Your task to perform on an android device: see tabs open on other devices in the chrome app Image 0: 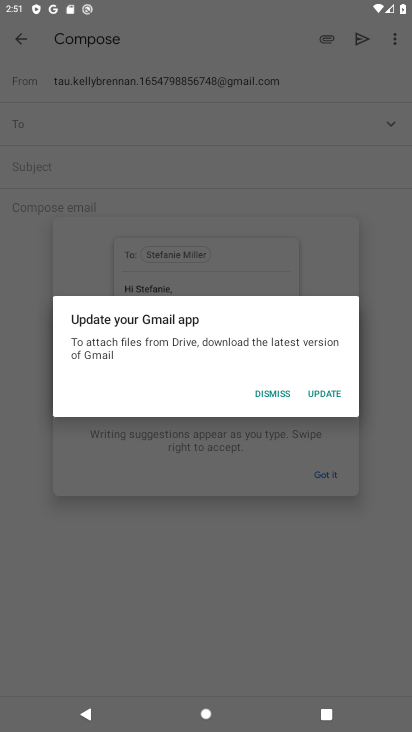
Step 0: press home button
Your task to perform on an android device: see tabs open on other devices in the chrome app Image 1: 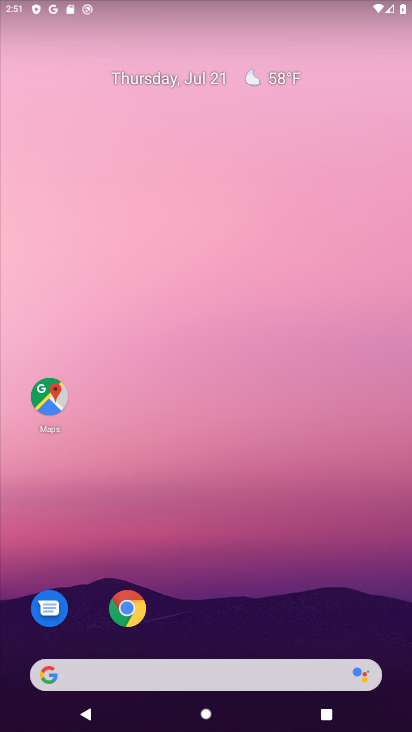
Step 1: click (120, 606)
Your task to perform on an android device: see tabs open on other devices in the chrome app Image 2: 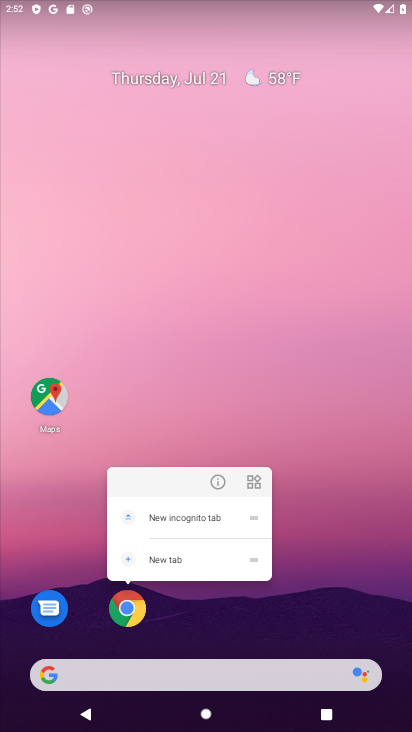
Step 2: click (333, 513)
Your task to perform on an android device: see tabs open on other devices in the chrome app Image 3: 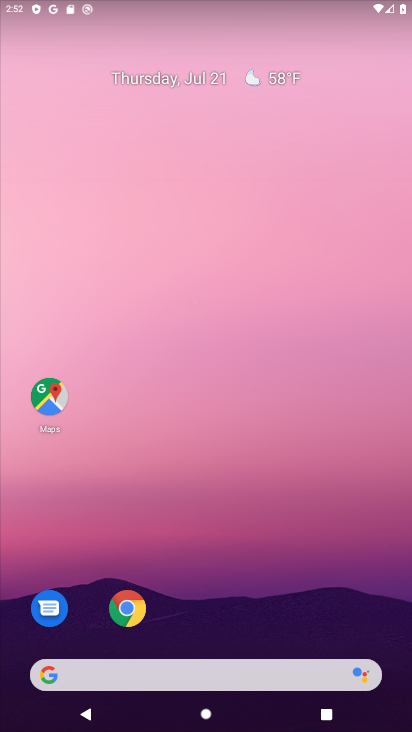
Step 3: click (124, 605)
Your task to perform on an android device: see tabs open on other devices in the chrome app Image 4: 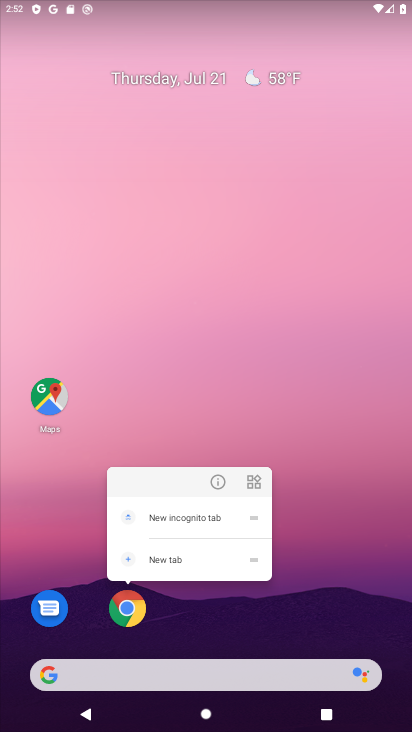
Step 4: click (122, 611)
Your task to perform on an android device: see tabs open on other devices in the chrome app Image 5: 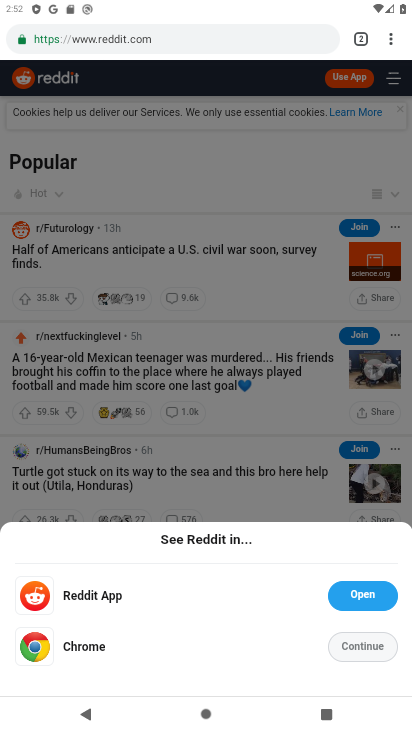
Step 5: click (389, 37)
Your task to perform on an android device: see tabs open on other devices in the chrome app Image 6: 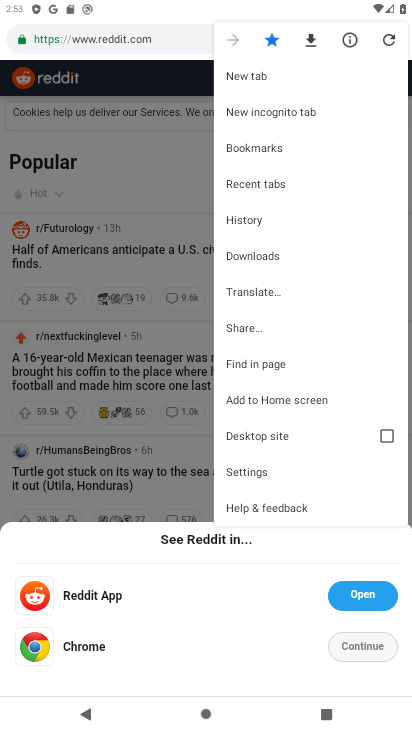
Step 6: click (279, 183)
Your task to perform on an android device: see tabs open on other devices in the chrome app Image 7: 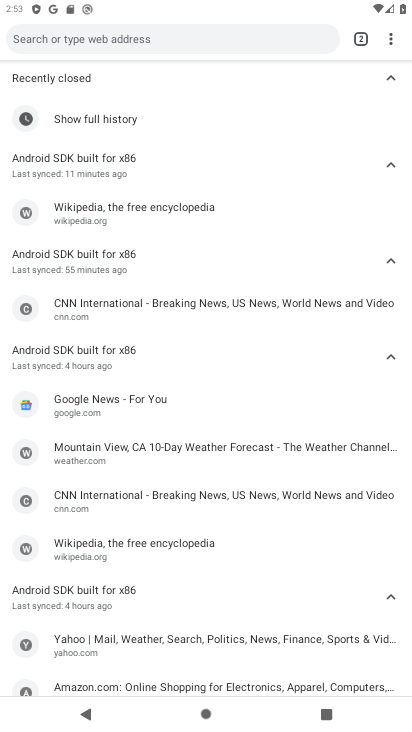
Step 7: task complete